Your task to perform on an android device: What's the weather today? Image 0: 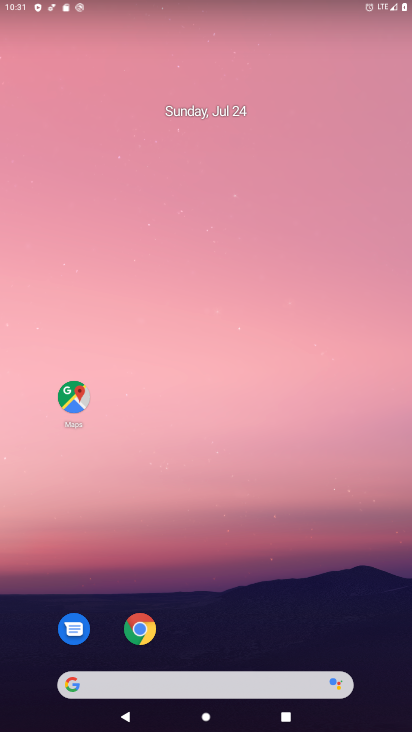
Step 0: press home button
Your task to perform on an android device: What's the weather today? Image 1: 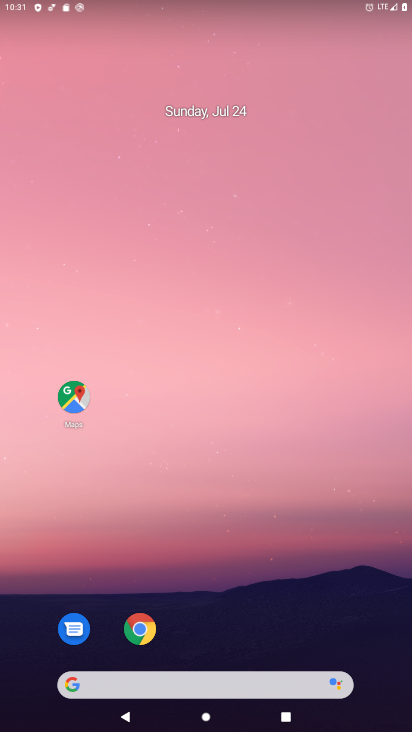
Step 1: drag from (187, 682) to (266, 6)
Your task to perform on an android device: What's the weather today? Image 2: 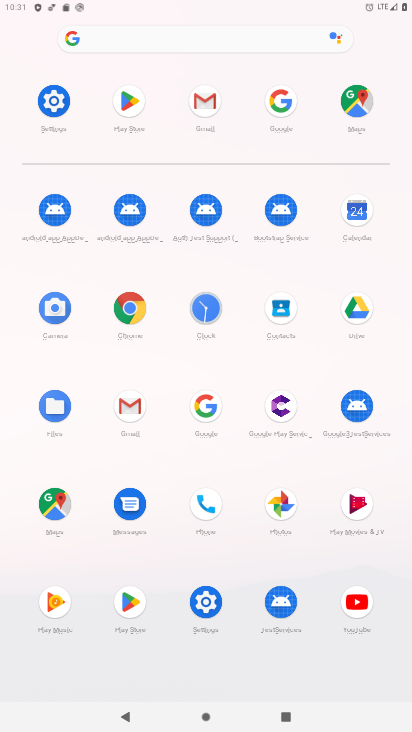
Step 2: click (281, 98)
Your task to perform on an android device: What's the weather today? Image 3: 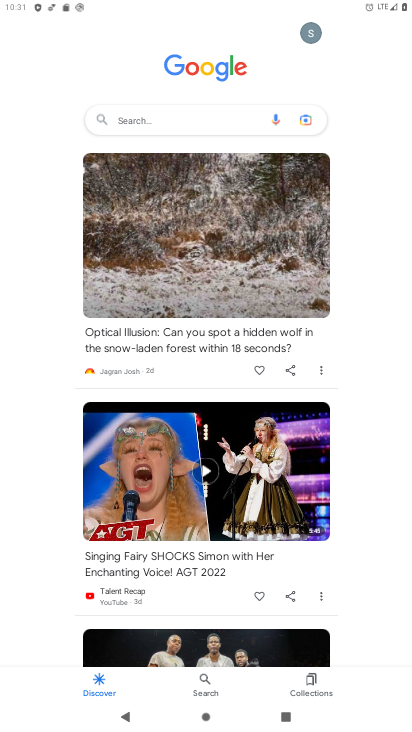
Step 3: click (203, 114)
Your task to perform on an android device: What's the weather today? Image 4: 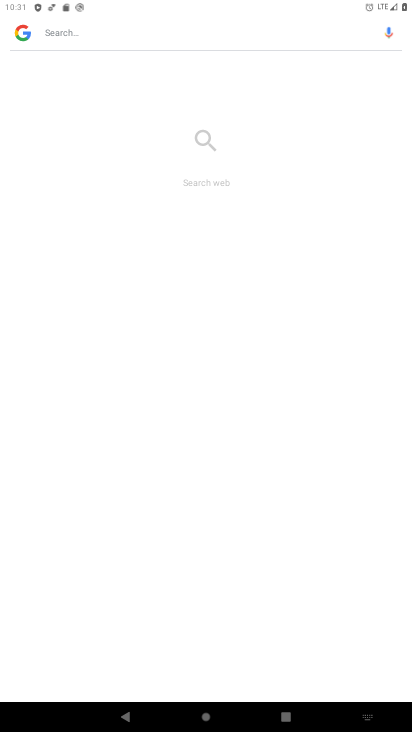
Step 4: type "weather today"
Your task to perform on an android device: What's the weather today? Image 5: 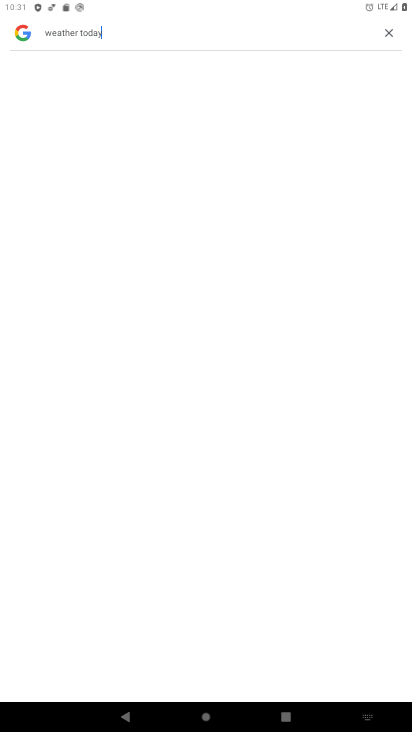
Step 5: type ""
Your task to perform on an android device: What's the weather today? Image 6: 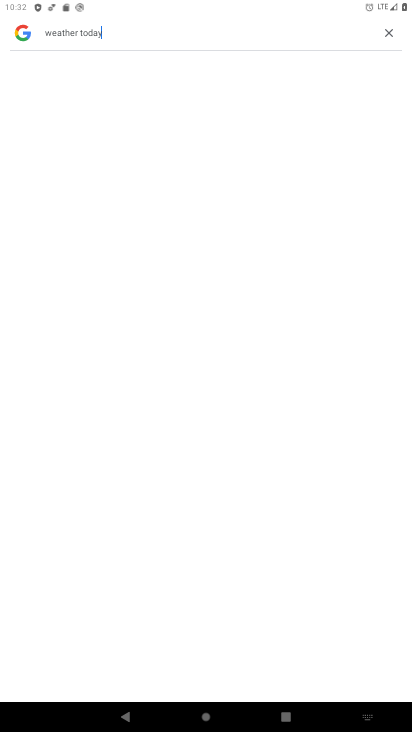
Step 6: task complete